Your task to perform on an android device: refresh tabs in the chrome app Image 0: 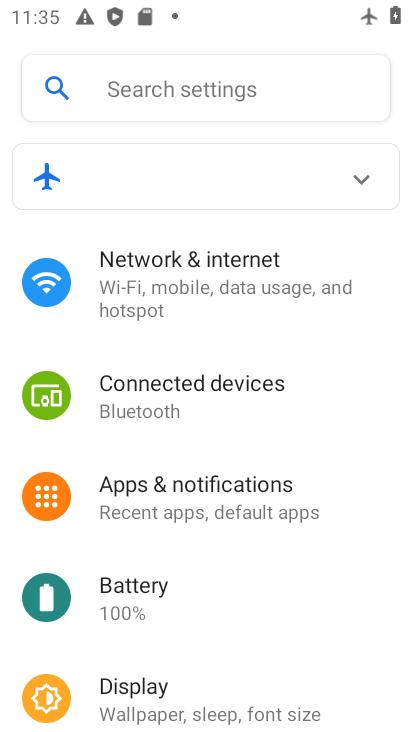
Step 0: press home button
Your task to perform on an android device: refresh tabs in the chrome app Image 1: 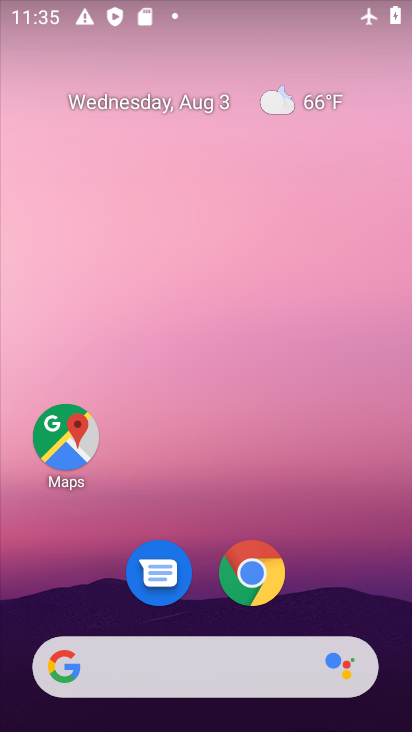
Step 1: drag from (304, 568) to (350, 120)
Your task to perform on an android device: refresh tabs in the chrome app Image 2: 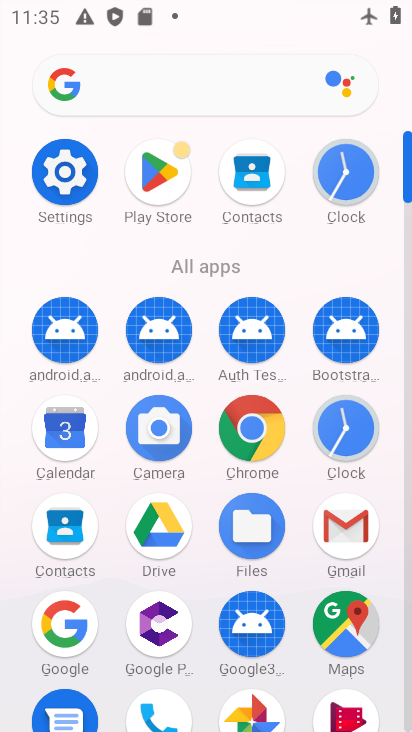
Step 2: click (261, 440)
Your task to perform on an android device: refresh tabs in the chrome app Image 3: 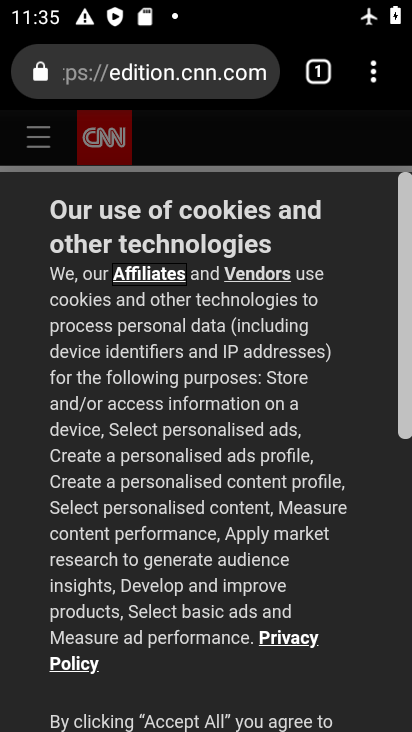
Step 3: click (380, 63)
Your task to perform on an android device: refresh tabs in the chrome app Image 4: 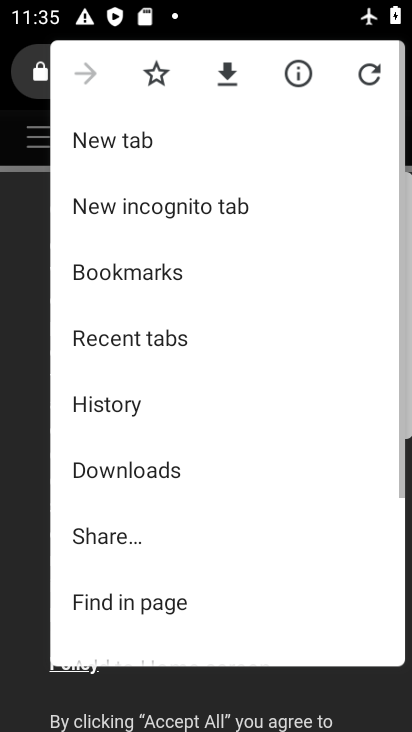
Step 4: click (380, 63)
Your task to perform on an android device: refresh tabs in the chrome app Image 5: 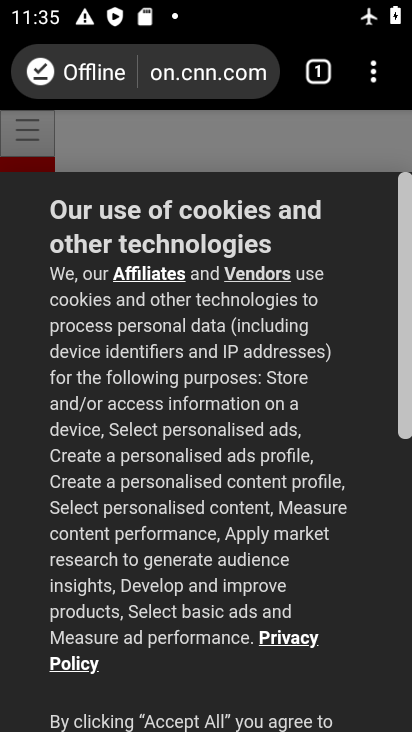
Step 5: task complete